Your task to perform on an android device: add a contact in the contacts app Image 0: 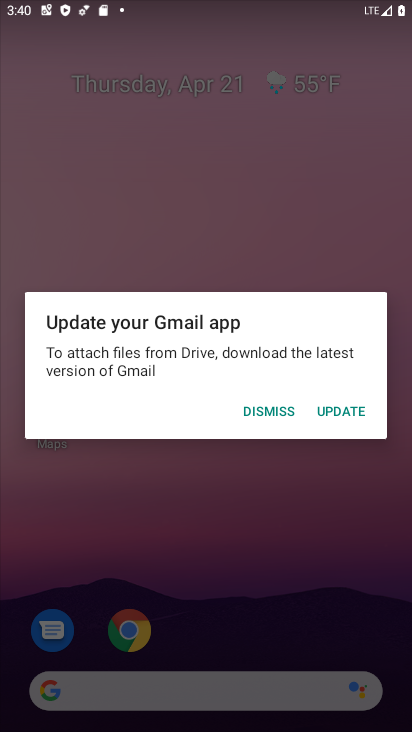
Step 0: press back button
Your task to perform on an android device: add a contact in the contacts app Image 1: 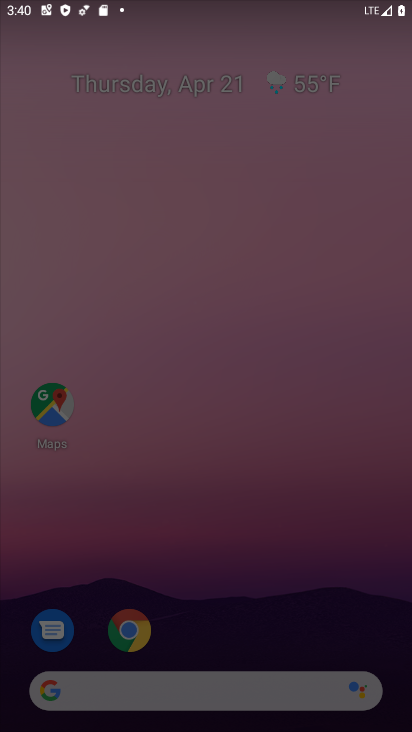
Step 1: click (289, 249)
Your task to perform on an android device: add a contact in the contacts app Image 2: 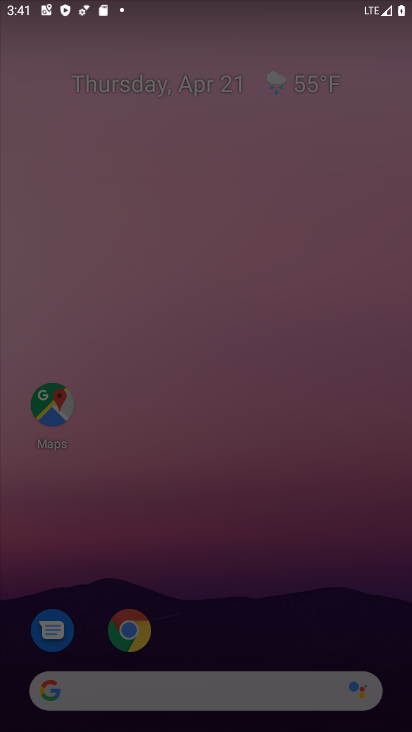
Step 2: drag from (203, 423) to (238, 177)
Your task to perform on an android device: add a contact in the contacts app Image 3: 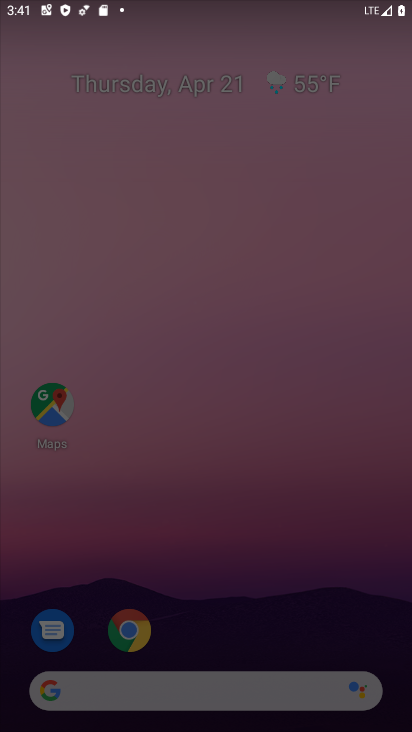
Step 3: press back button
Your task to perform on an android device: add a contact in the contacts app Image 4: 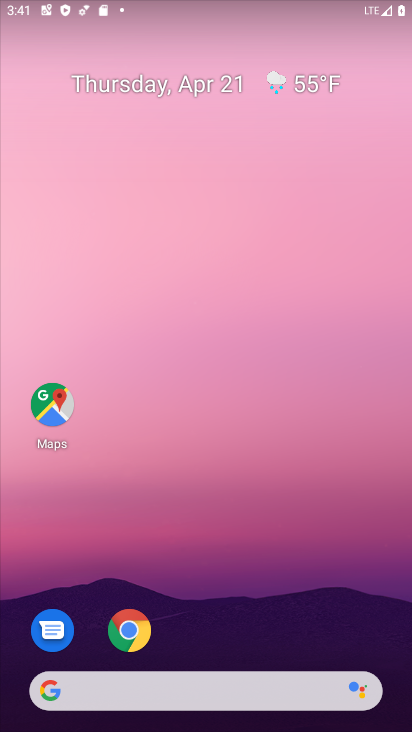
Step 4: drag from (217, 549) to (315, 21)
Your task to perform on an android device: add a contact in the contacts app Image 5: 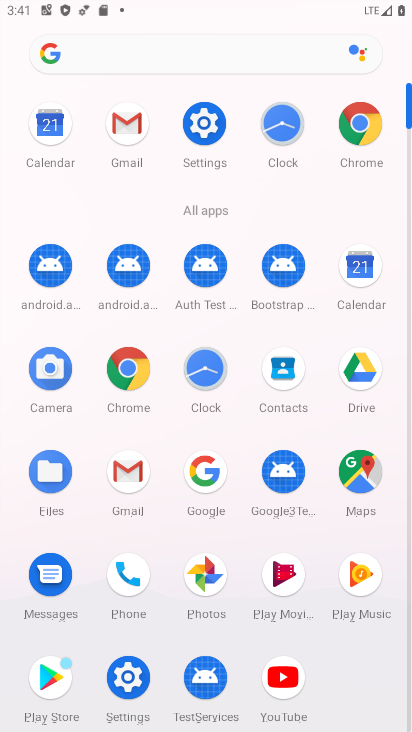
Step 5: click (283, 374)
Your task to perform on an android device: add a contact in the contacts app Image 6: 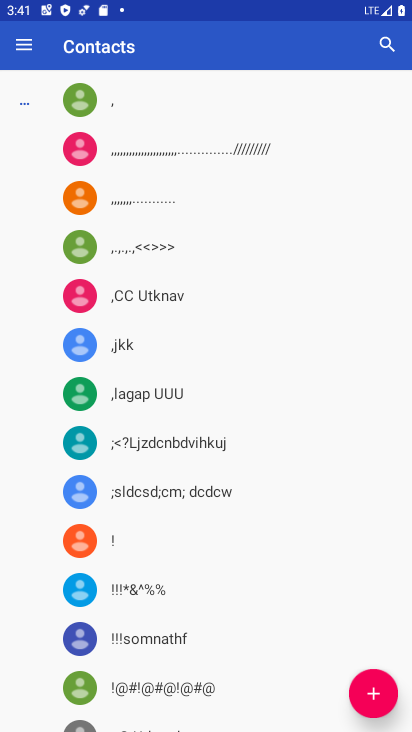
Step 6: click (384, 704)
Your task to perform on an android device: add a contact in the contacts app Image 7: 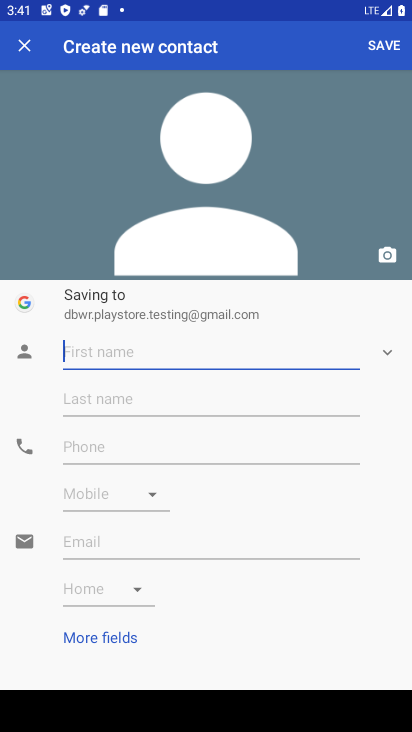
Step 7: click (98, 353)
Your task to perform on an android device: add a contact in the contacts app Image 8: 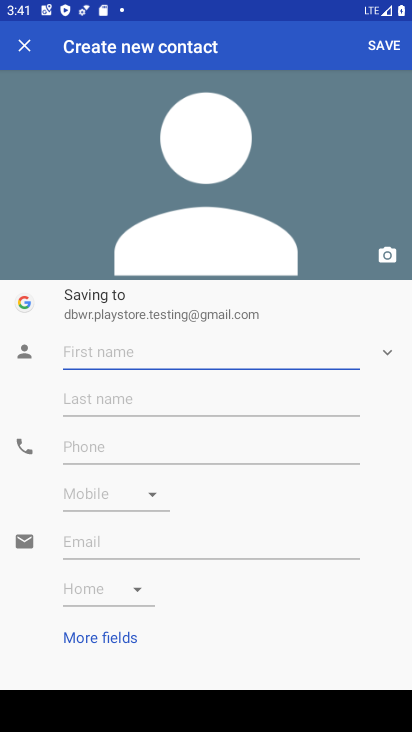
Step 8: type "hvgh"
Your task to perform on an android device: add a contact in the contacts app Image 9: 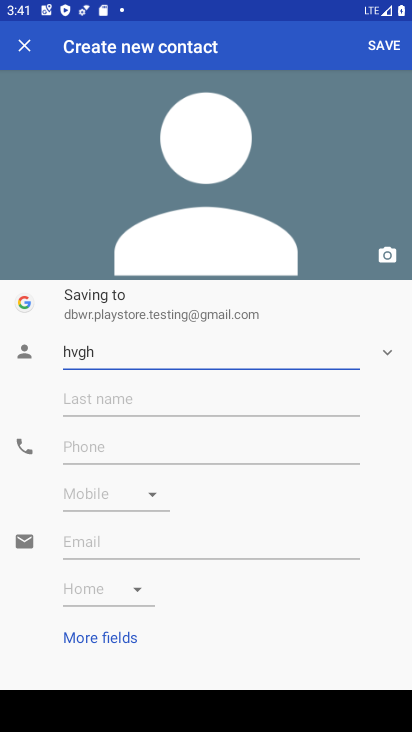
Step 9: click (118, 437)
Your task to perform on an android device: add a contact in the contacts app Image 10: 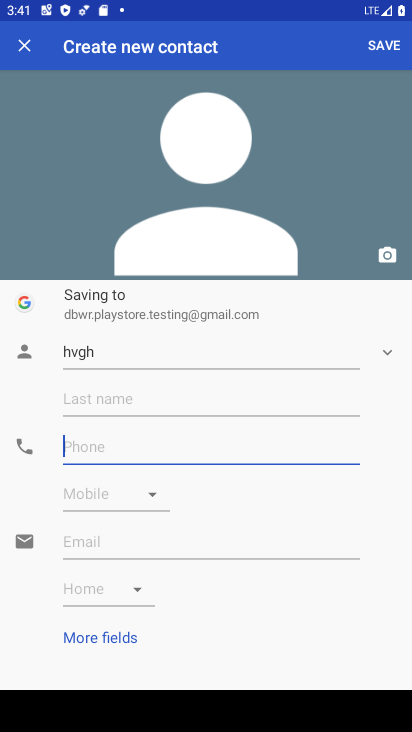
Step 10: type "5656"
Your task to perform on an android device: add a contact in the contacts app Image 11: 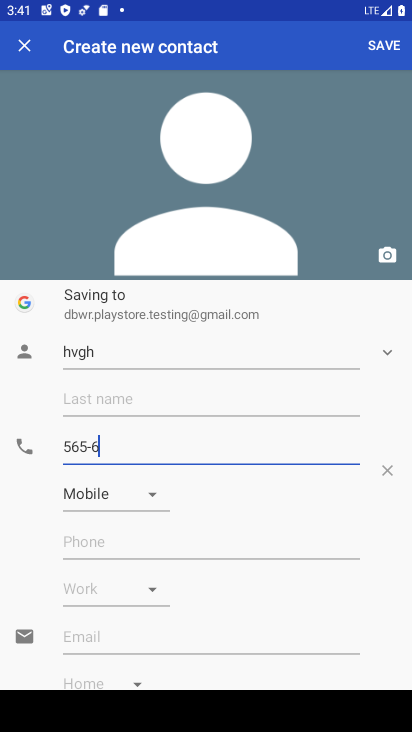
Step 11: click (382, 39)
Your task to perform on an android device: add a contact in the contacts app Image 12: 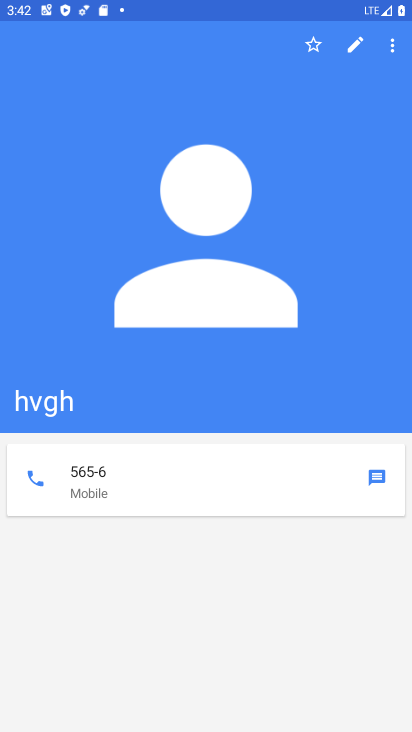
Step 12: task complete